Your task to perform on an android device: turn on data saver in the chrome app Image 0: 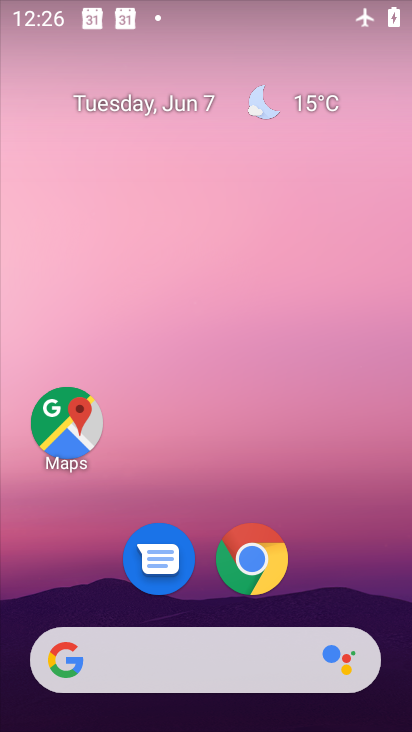
Step 0: click (250, 556)
Your task to perform on an android device: turn on data saver in the chrome app Image 1: 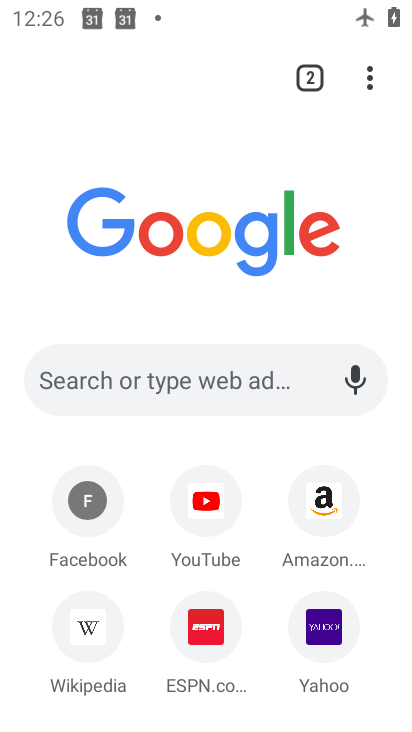
Step 1: click (367, 86)
Your task to perform on an android device: turn on data saver in the chrome app Image 2: 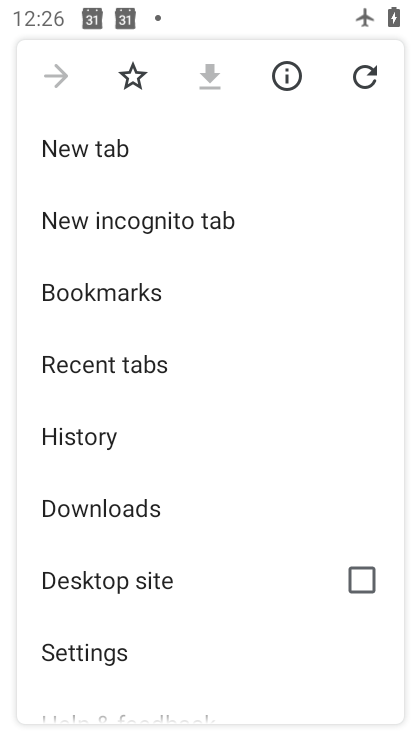
Step 2: drag from (207, 630) to (233, 250)
Your task to perform on an android device: turn on data saver in the chrome app Image 3: 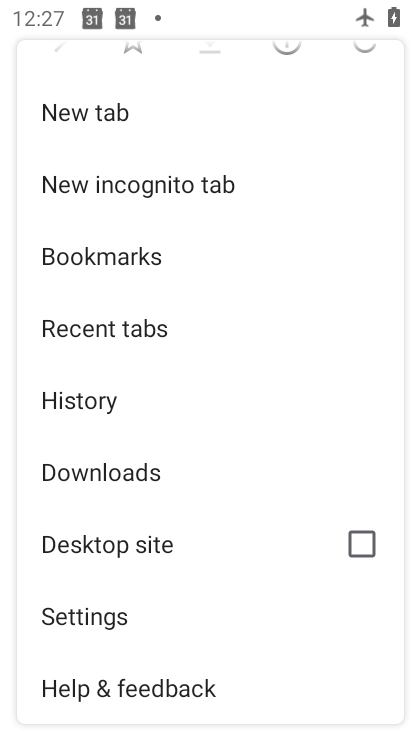
Step 3: click (101, 611)
Your task to perform on an android device: turn on data saver in the chrome app Image 4: 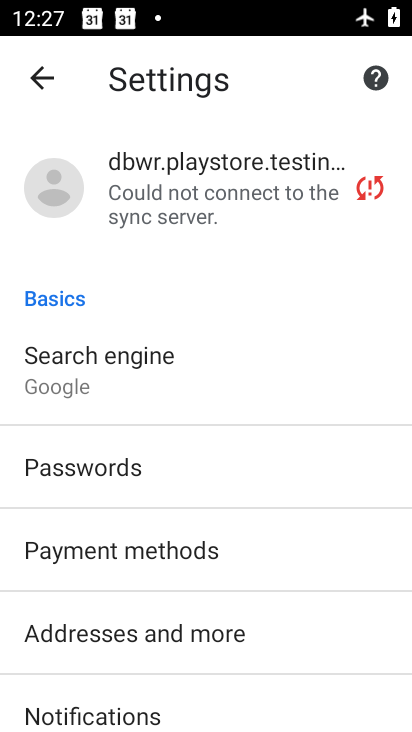
Step 4: drag from (279, 674) to (247, 156)
Your task to perform on an android device: turn on data saver in the chrome app Image 5: 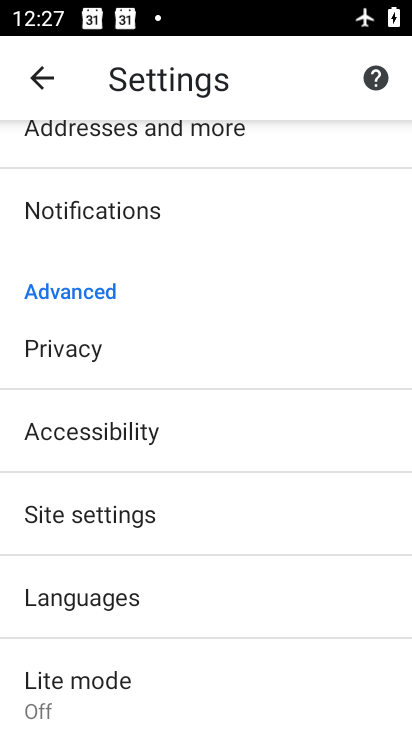
Step 5: click (89, 661)
Your task to perform on an android device: turn on data saver in the chrome app Image 6: 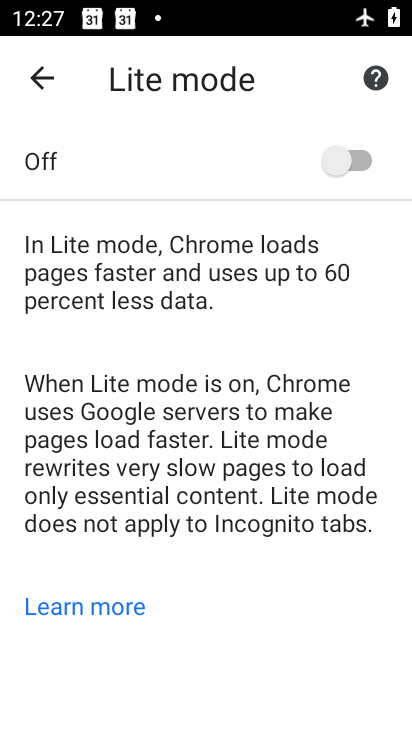
Step 6: click (360, 159)
Your task to perform on an android device: turn on data saver in the chrome app Image 7: 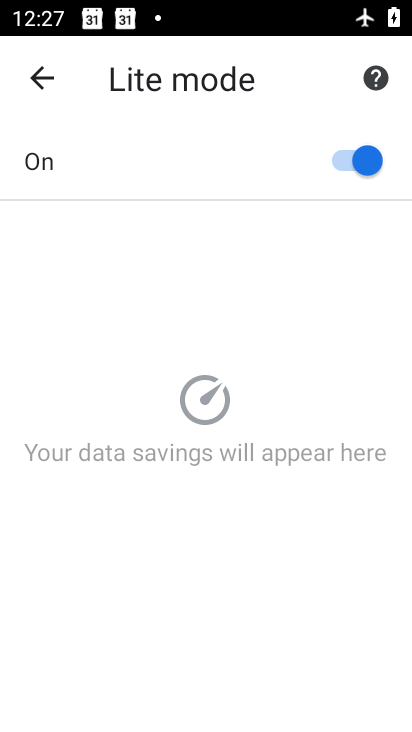
Step 7: task complete